Your task to perform on an android device: open chrome and create a bookmark for the current page Image 0: 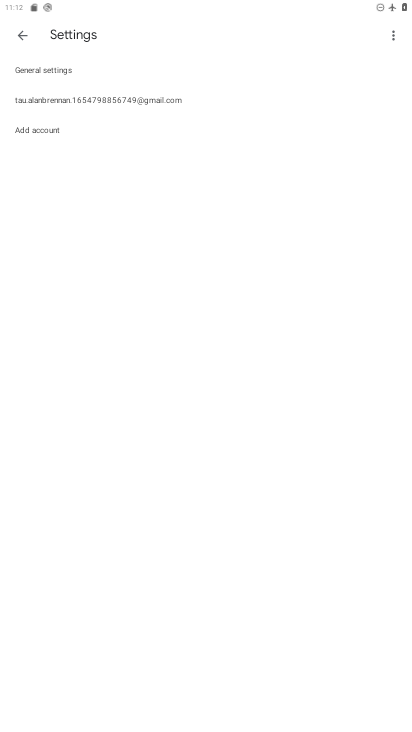
Step 0: press home button
Your task to perform on an android device: open chrome and create a bookmark for the current page Image 1: 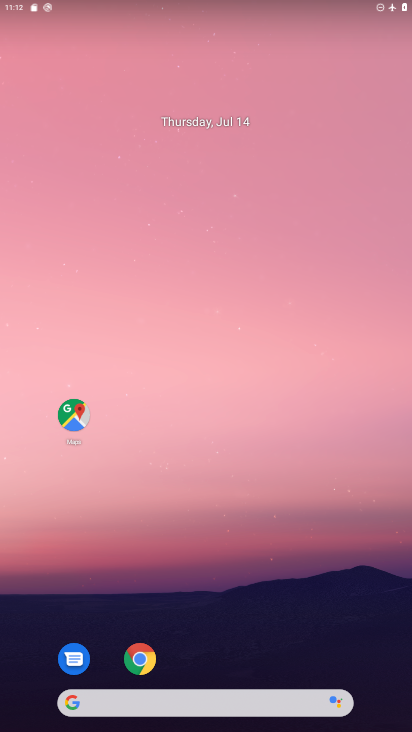
Step 1: drag from (227, 581) to (188, 167)
Your task to perform on an android device: open chrome and create a bookmark for the current page Image 2: 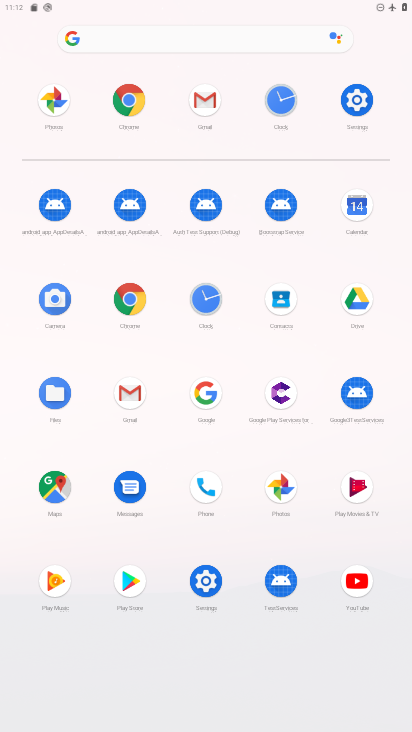
Step 2: click (129, 103)
Your task to perform on an android device: open chrome and create a bookmark for the current page Image 3: 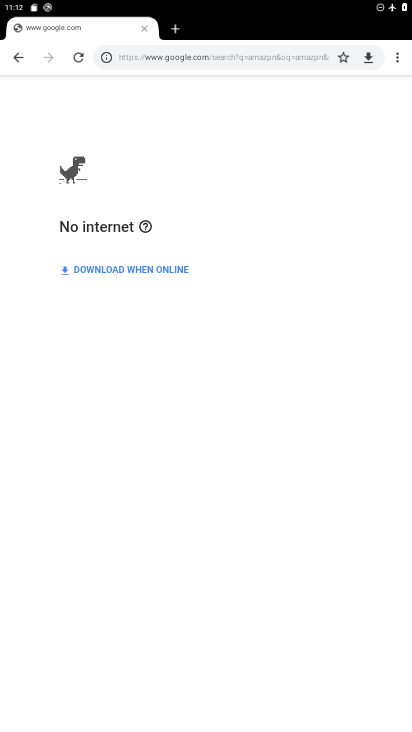
Step 3: drag from (398, 59) to (160, 542)
Your task to perform on an android device: open chrome and create a bookmark for the current page Image 4: 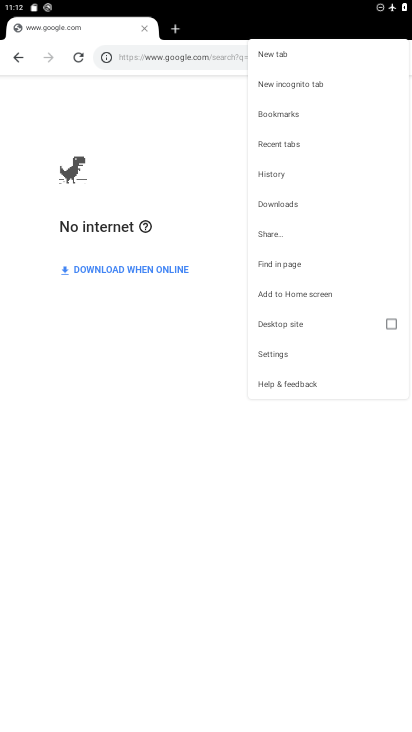
Step 4: click (160, 539)
Your task to perform on an android device: open chrome and create a bookmark for the current page Image 5: 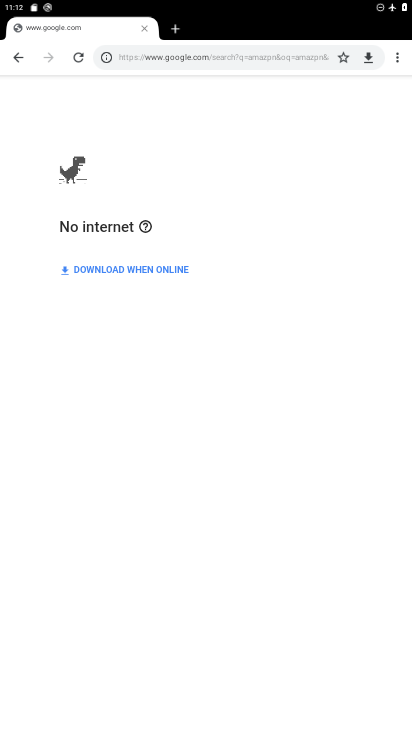
Step 5: click (341, 56)
Your task to perform on an android device: open chrome and create a bookmark for the current page Image 6: 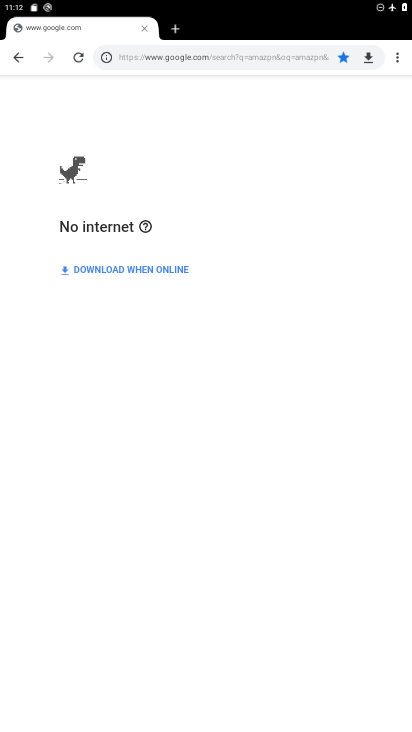
Step 6: task complete